Your task to perform on an android device: Open the calendar app, open the side menu, and click the "Day" option Image 0: 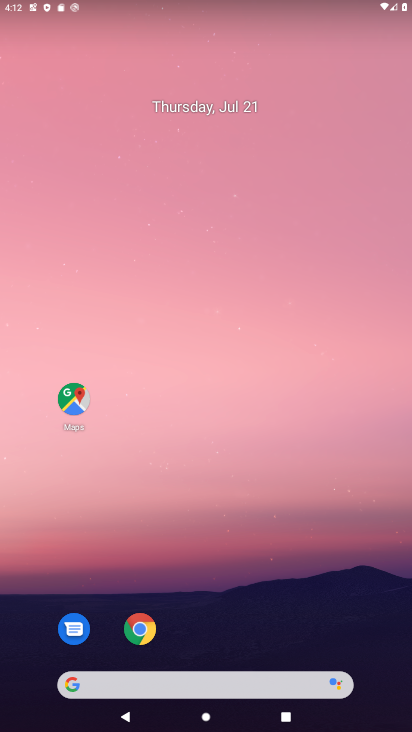
Step 0: drag from (266, 609) to (199, 59)
Your task to perform on an android device: Open the calendar app, open the side menu, and click the "Day" option Image 1: 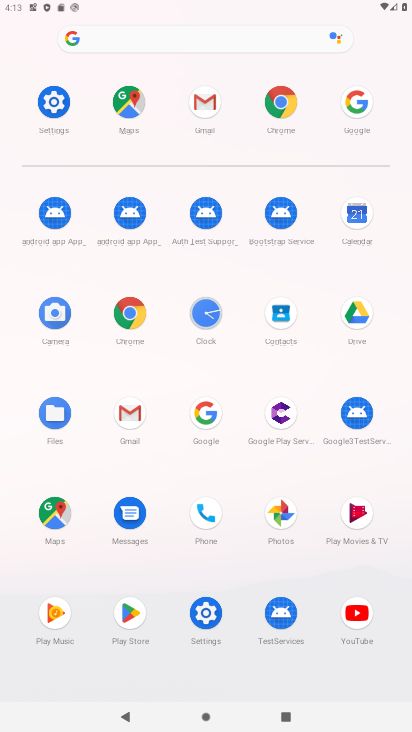
Step 1: click (358, 220)
Your task to perform on an android device: Open the calendar app, open the side menu, and click the "Day" option Image 2: 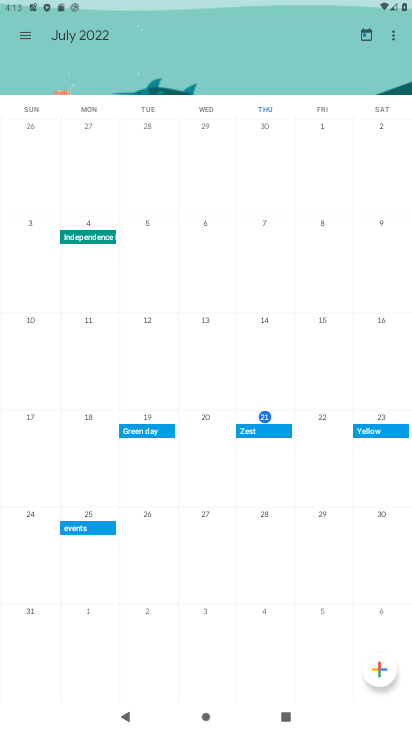
Step 2: click (24, 34)
Your task to perform on an android device: Open the calendar app, open the side menu, and click the "Day" option Image 3: 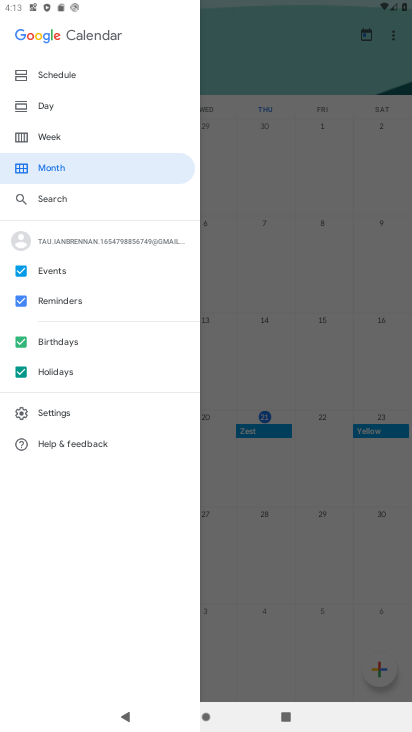
Step 3: click (42, 103)
Your task to perform on an android device: Open the calendar app, open the side menu, and click the "Day" option Image 4: 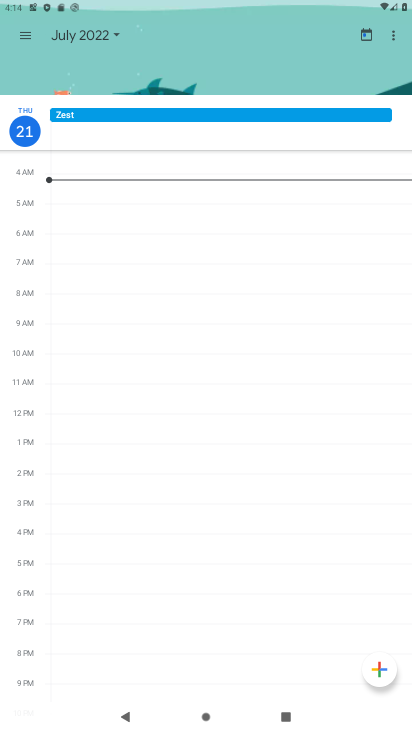
Step 4: task complete